Your task to perform on an android device: allow notifications from all sites in the chrome app Image 0: 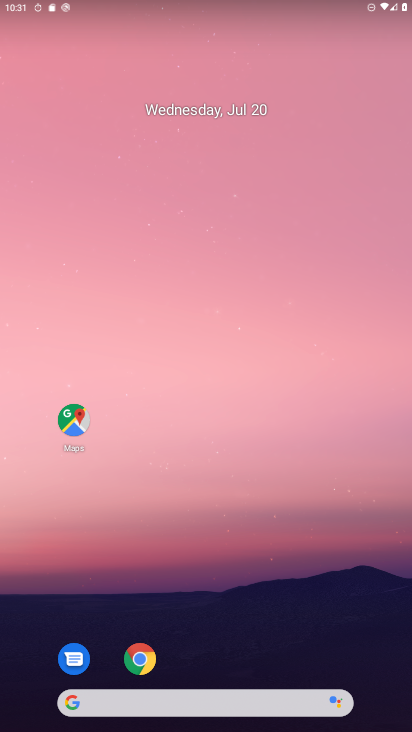
Step 0: drag from (244, 587) to (179, 36)
Your task to perform on an android device: allow notifications from all sites in the chrome app Image 1: 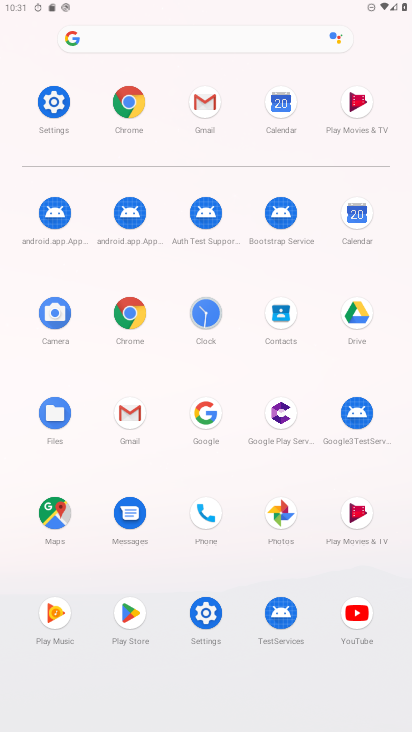
Step 1: click (129, 314)
Your task to perform on an android device: allow notifications from all sites in the chrome app Image 2: 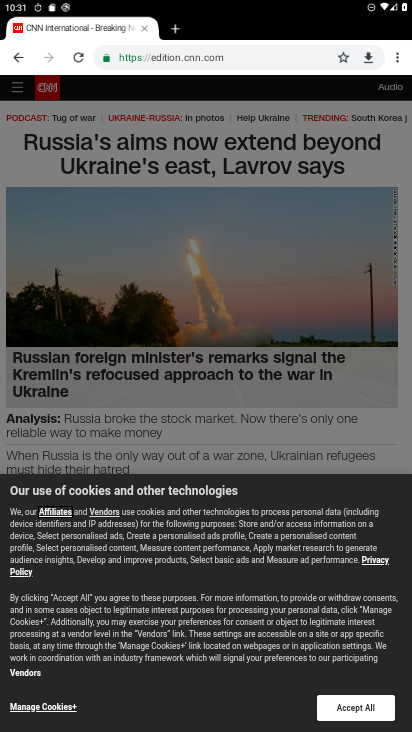
Step 2: drag from (399, 50) to (299, 350)
Your task to perform on an android device: allow notifications from all sites in the chrome app Image 3: 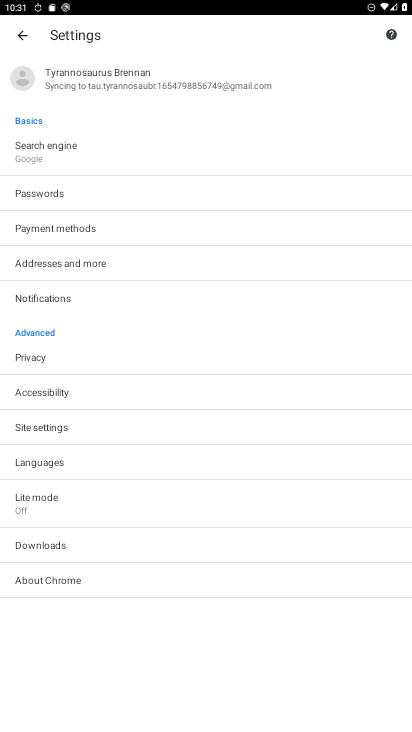
Step 3: click (70, 433)
Your task to perform on an android device: allow notifications from all sites in the chrome app Image 4: 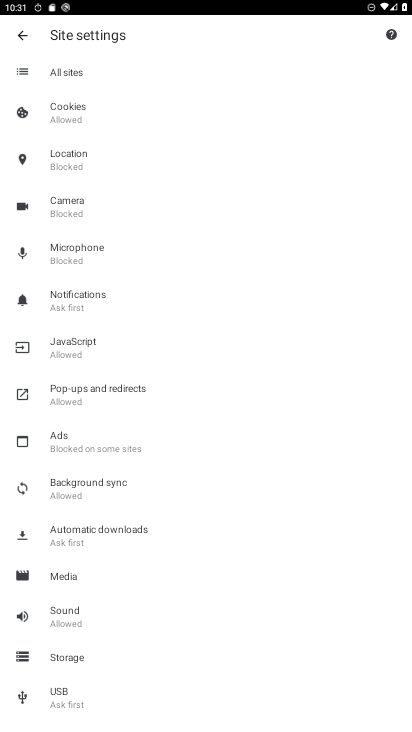
Step 4: click (77, 297)
Your task to perform on an android device: allow notifications from all sites in the chrome app Image 5: 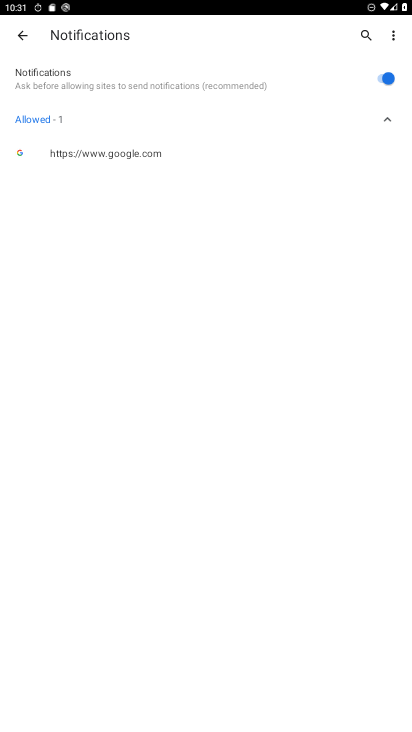
Step 5: task complete